Your task to perform on an android device: choose inbox layout in the gmail app Image 0: 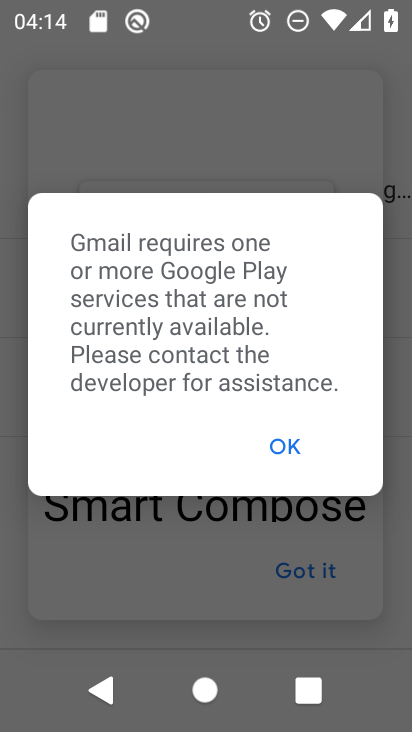
Step 0: press home button
Your task to perform on an android device: choose inbox layout in the gmail app Image 1: 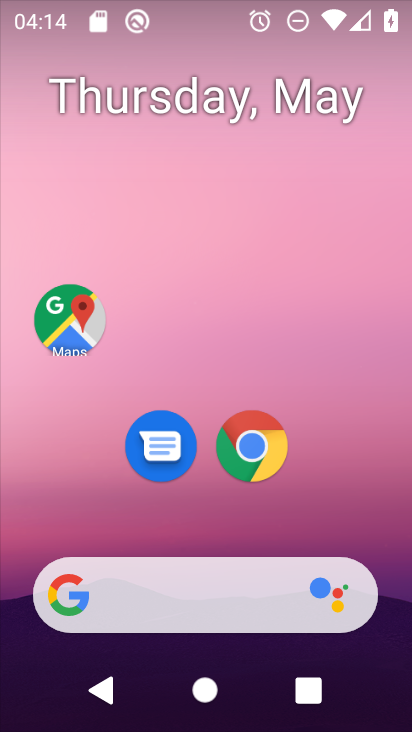
Step 1: drag from (365, 547) to (390, 16)
Your task to perform on an android device: choose inbox layout in the gmail app Image 2: 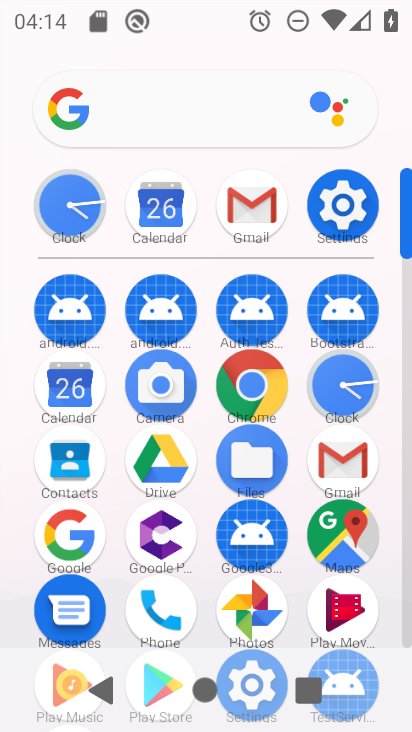
Step 2: click (242, 210)
Your task to perform on an android device: choose inbox layout in the gmail app Image 3: 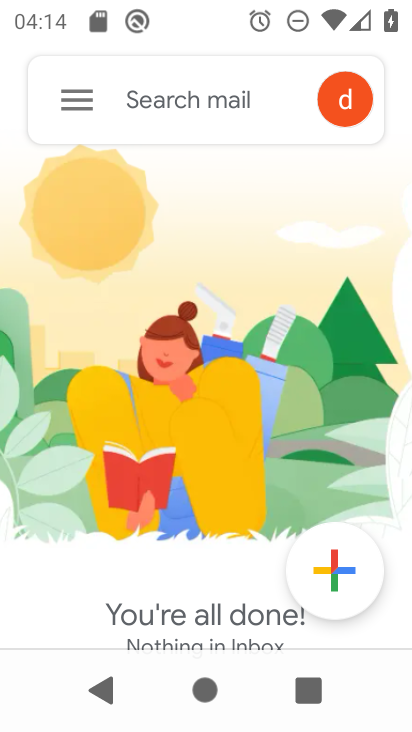
Step 3: click (69, 98)
Your task to perform on an android device: choose inbox layout in the gmail app Image 4: 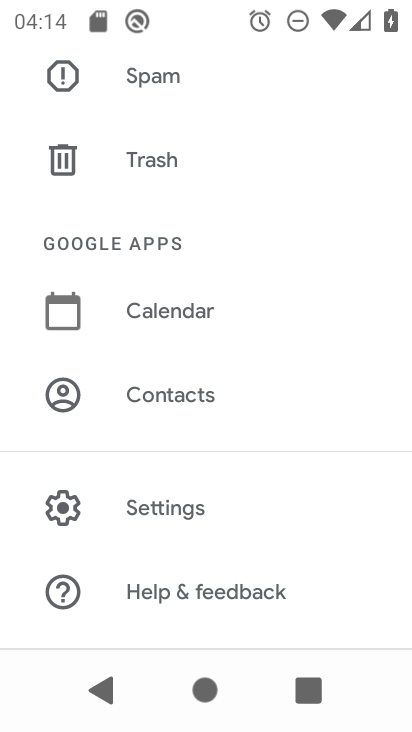
Step 4: click (168, 501)
Your task to perform on an android device: choose inbox layout in the gmail app Image 5: 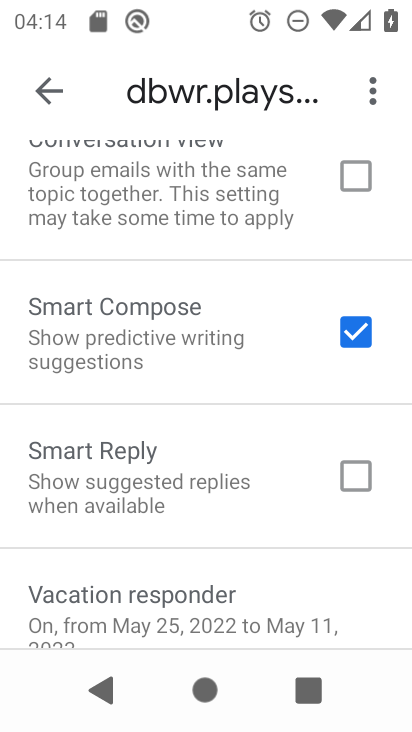
Step 5: drag from (172, 209) to (236, 725)
Your task to perform on an android device: choose inbox layout in the gmail app Image 6: 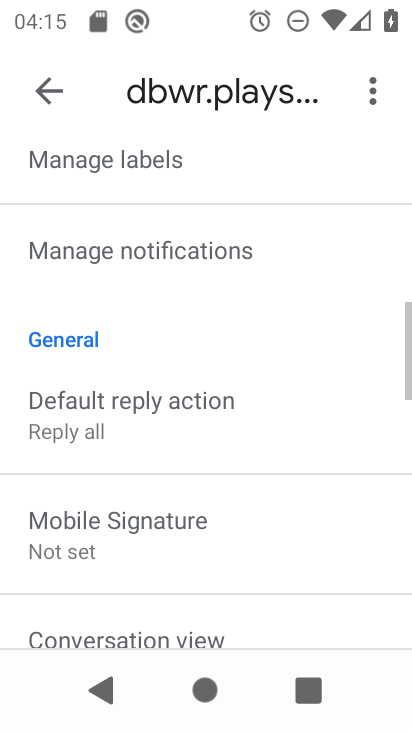
Step 6: drag from (166, 251) to (209, 730)
Your task to perform on an android device: choose inbox layout in the gmail app Image 7: 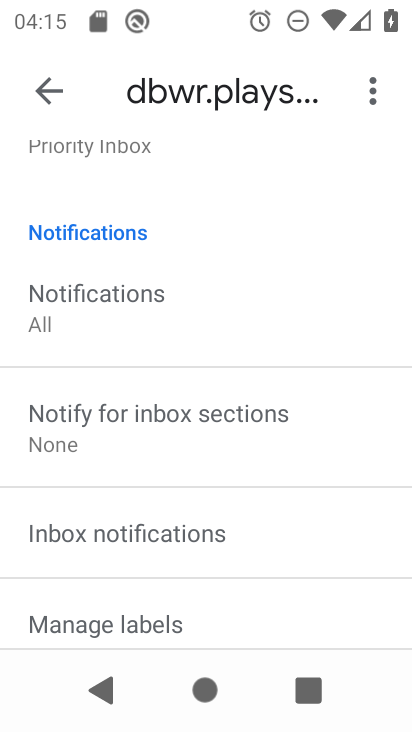
Step 7: drag from (117, 205) to (185, 731)
Your task to perform on an android device: choose inbox layout in the gmail app Image 8: 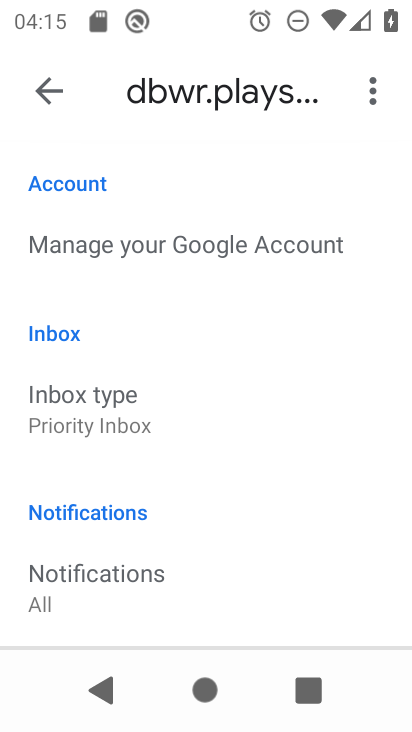
Step 8: click (110, 427)
Your task to perform on an android device: choose inbox layout in the gmail app Image 9: 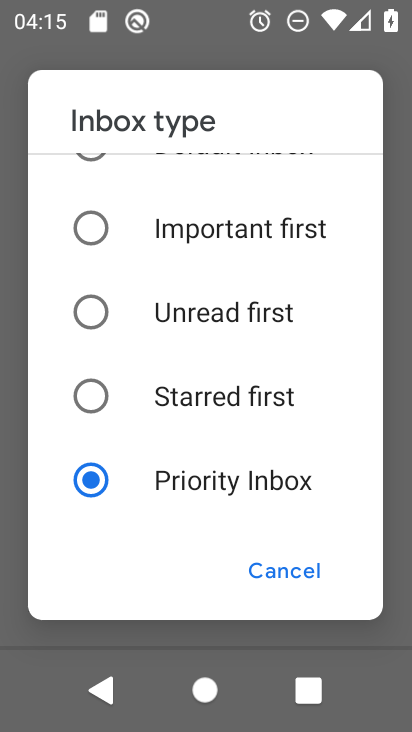
Step 9: click (104, 307)
Your task to perform on an android device: choose inbox layout in the gmail app Image 10: 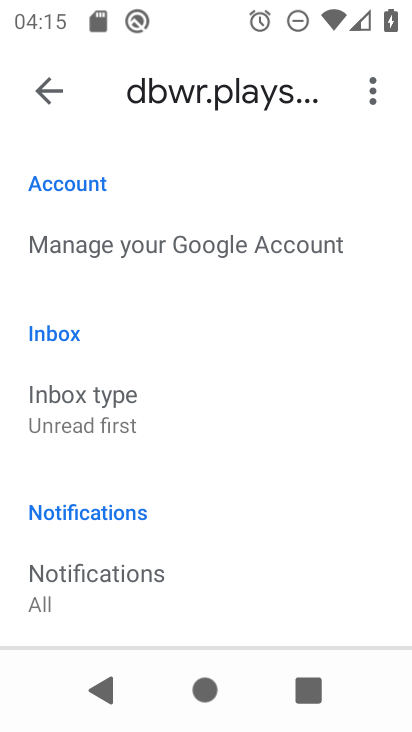
Step 10: task complete